Your task to perform on an android device: toggle pop-ups in chrome Image 0: 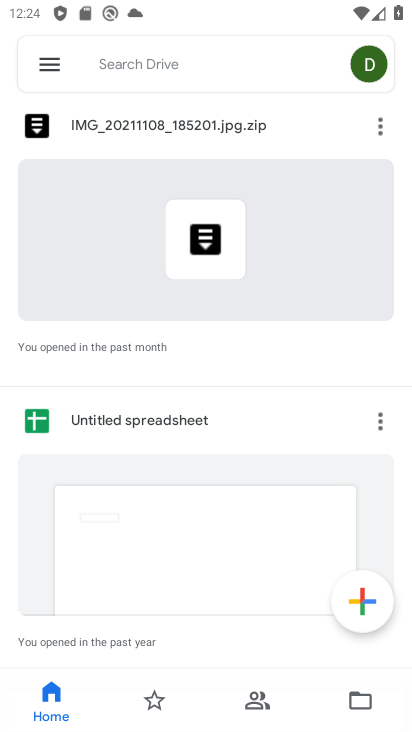
Step 0: press home button
Your task to perform on an android device: toggle pop-ups in chrome Image 1: 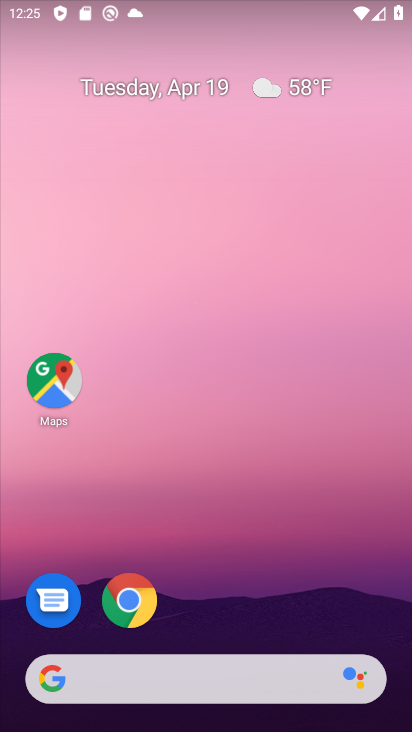
Step 1: drag from (348, 497) to (219, 122)
Your task to perform on an android device: toggle pop-ups in chrome Image 2: 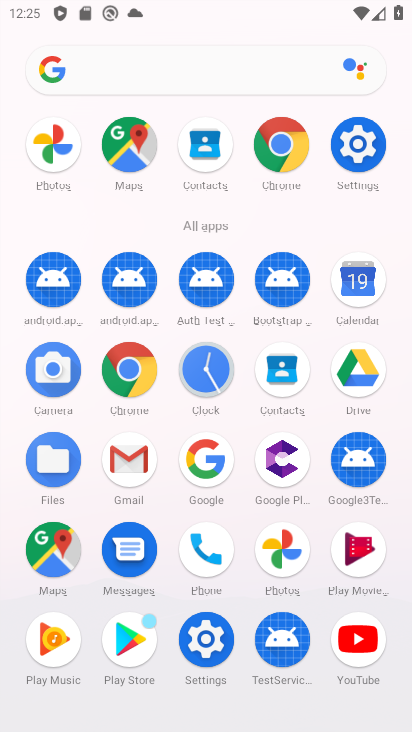
Step 2: click (299, 149)
Your task to perform on an android device: toggle pop-ups in chrome Image 3: 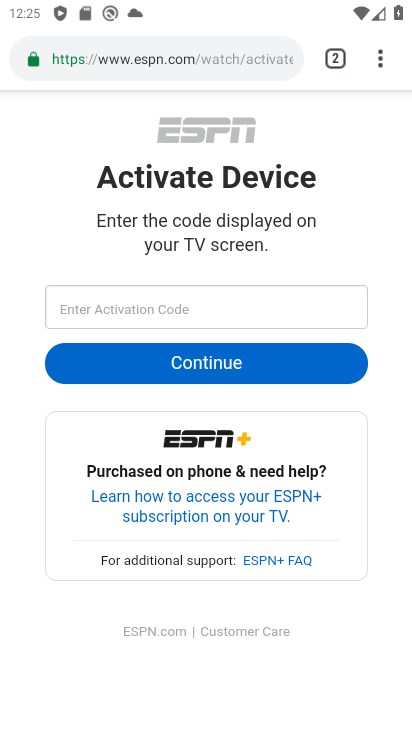
Step 3: drag from (388, 56) to (256, 638)
Your task to perform on an android device: toggle pop-ups in chrome Image 4: 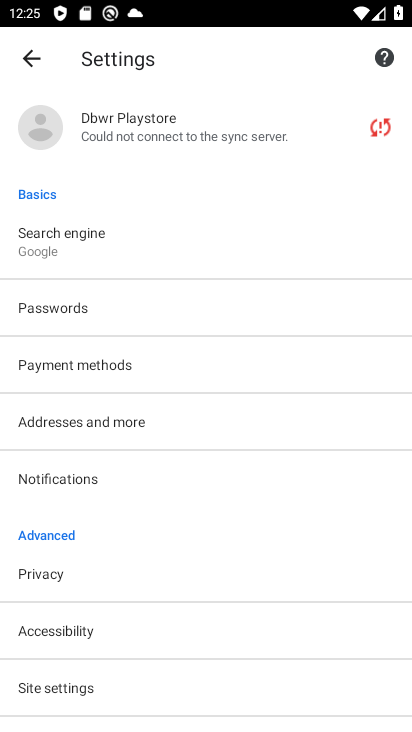
Step 4: click (272, 690)
Your task to perform on an android device: toggle pop-ups in chrome Image 5: 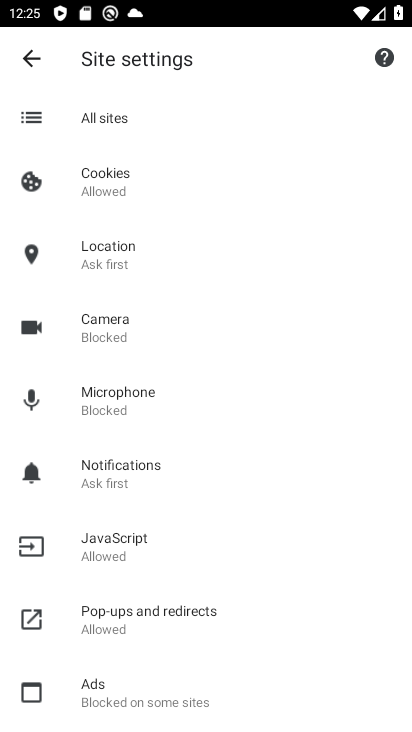
Step 5: click (267, 639)
Your task to perform on an android device: toggle pop-ups in chrome Image 6: 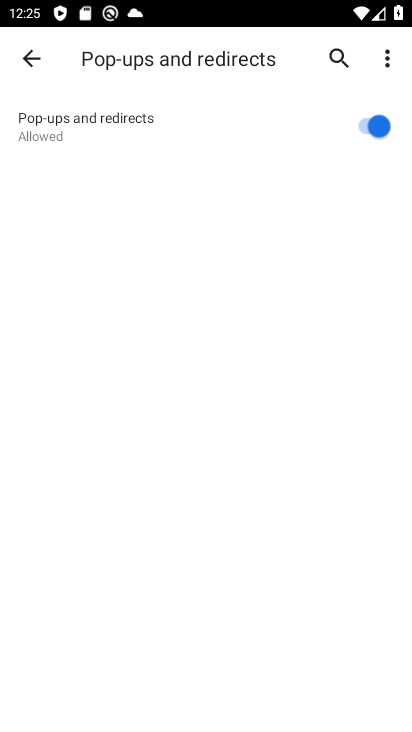
Step 6: click (369, 140)
Your task to perform on an android device: toggle pop-ups in chrome Image 7: 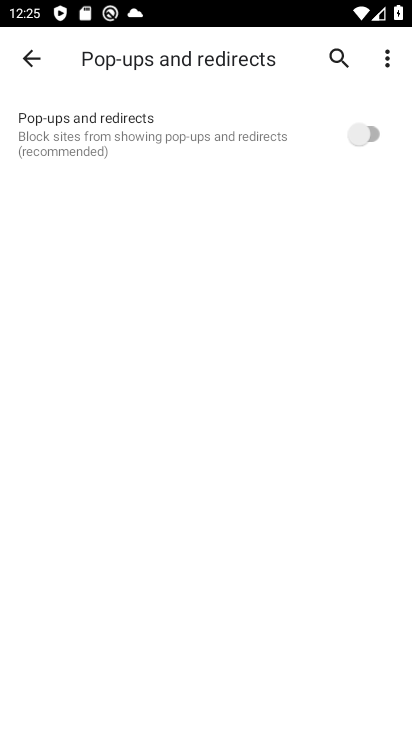
Step 7: task complete